Your task to perform on an android device: install app "AliExpress" Image 0: 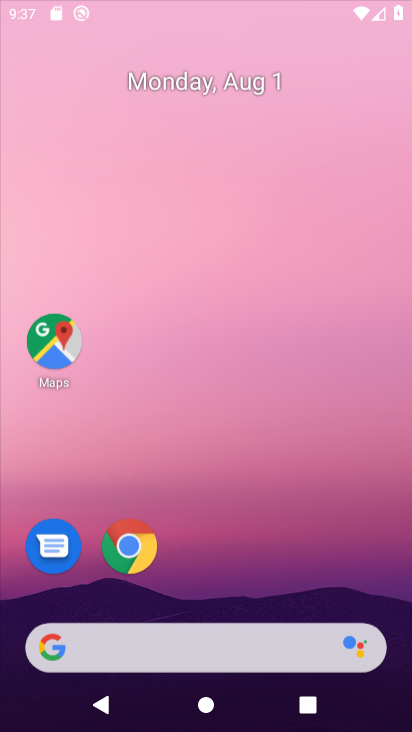
Step 0: press home button
Your task to perform on an android device: install app "AliExpress" Image 1: 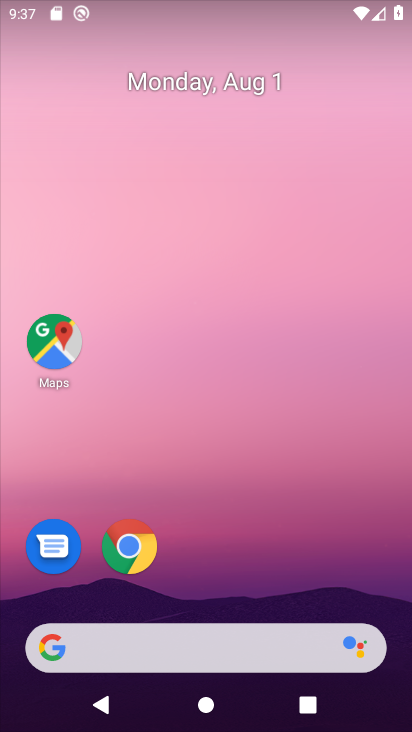
Step 1: drag from (210, 599) to (235, 18)
Your task to perform on an android device: install app "AliExpress" Image 2: 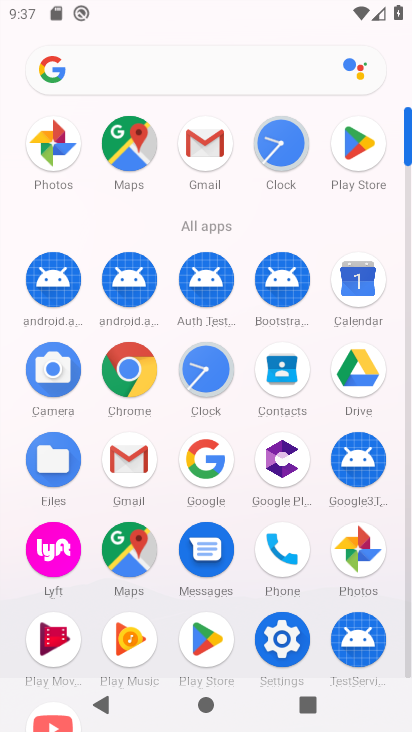
Step 2: click (355, 141)
Your task to perform on an android device: install app "AliExpress" Image 3: 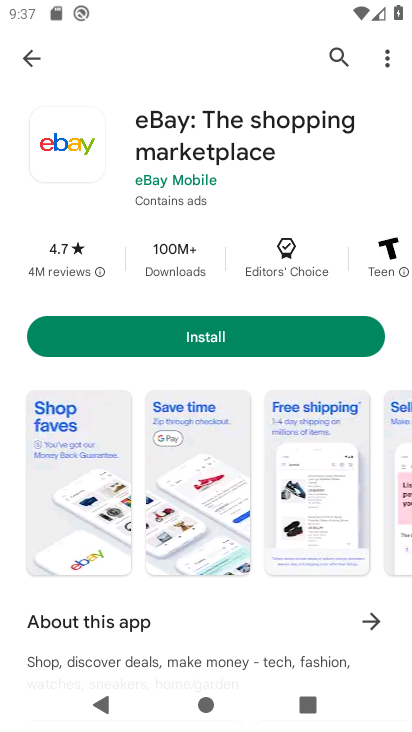
Step 3: click (346, 54)
Your task to perform on an android device: install app "AliExpress" Image 4: 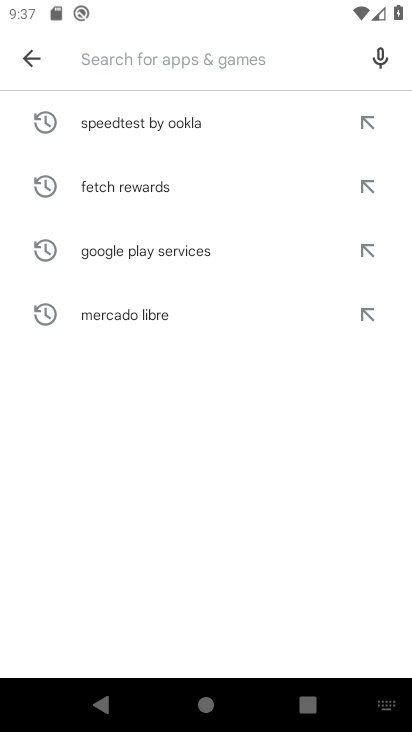
Step 4: type "AliExpress"
Your task to perform on an android device: install app "AliExpress" Image 5: 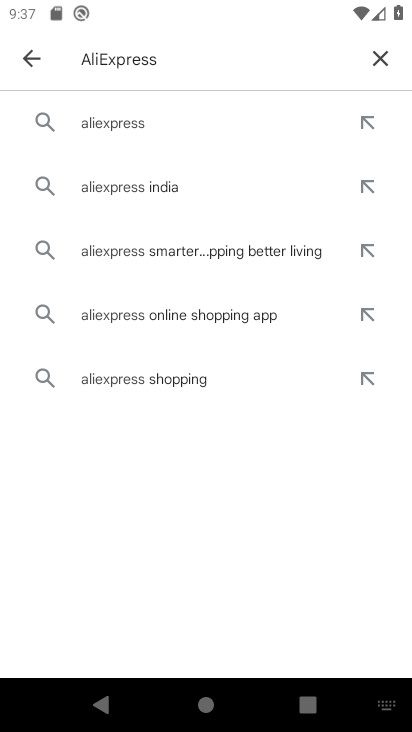
Step 5: click (127, 119)
Your task to perform on an android device: install app "AliExpress" Image 6: 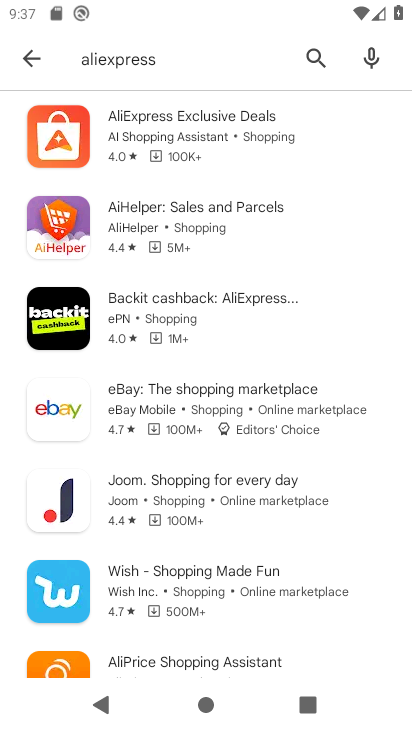
Step 6: click (169, 128)
Your task to perform on an android device: install app "AliExpress" Image 7: 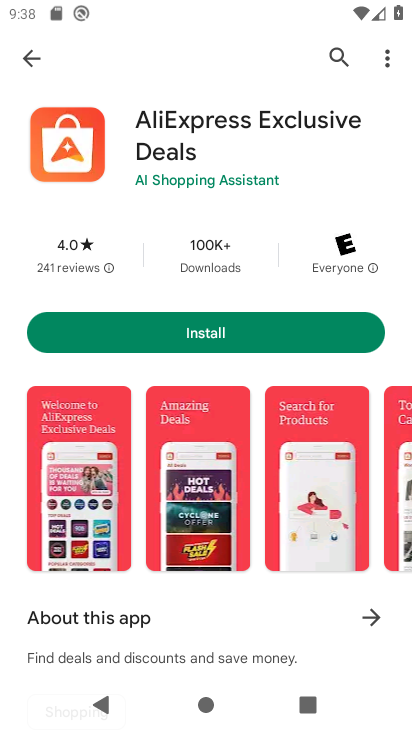
Step 7: click (209, 327)
Your task to perform on an android device: install app "AliExpress" Image 8: 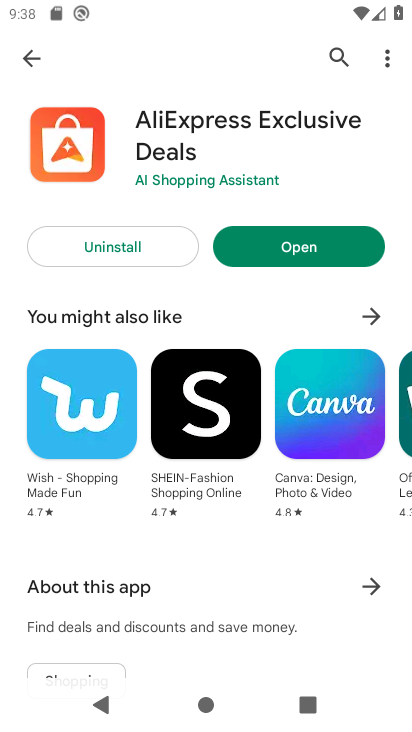
Step 8: click (290, 248)
Your task to perform on an android device: install app "AliExpress" Image 9: 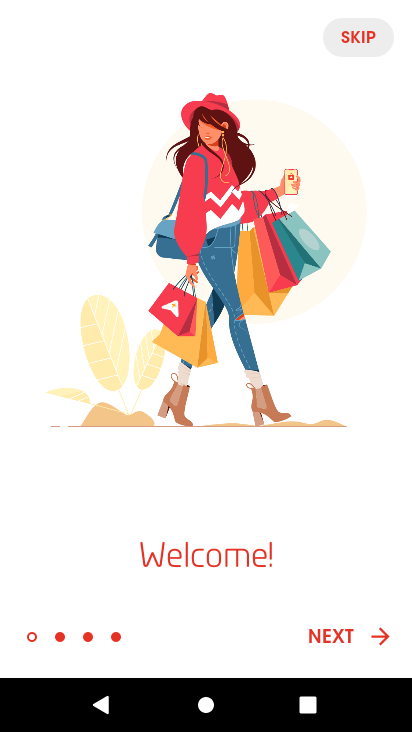
Step 9: click (340, 644)
Your task to perform on an android device: install app "AliExpress" Image 10: 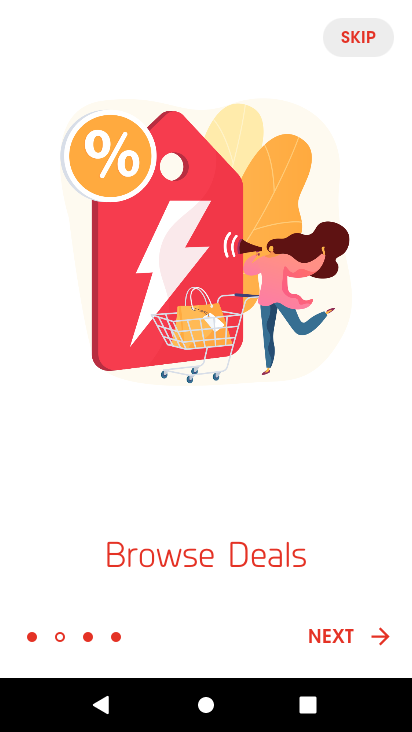
Step 10: click (348, 630)
Your task to perform on an android device: install app "AliExpress" Image 11: 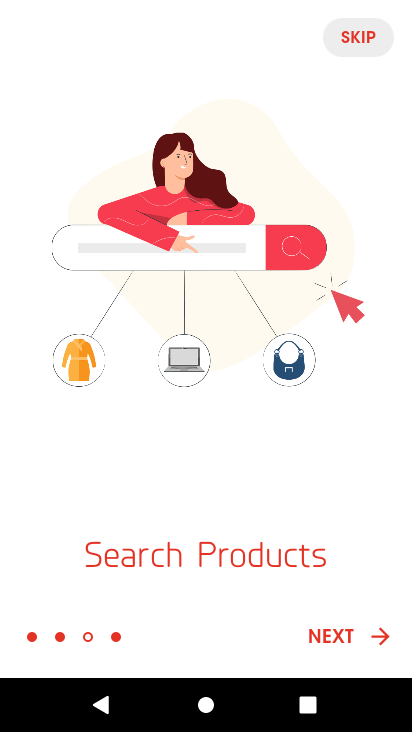
Step 11: click (376, 632)
Your task to perform on an android device: install app "AliExpress" Image 12: 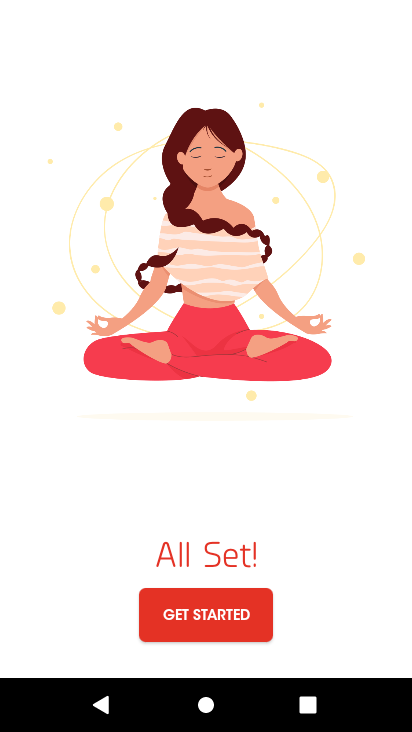
Step 12: click (202, 624)
Your task to perform on an android device: install app "AliExpress" Image 13: 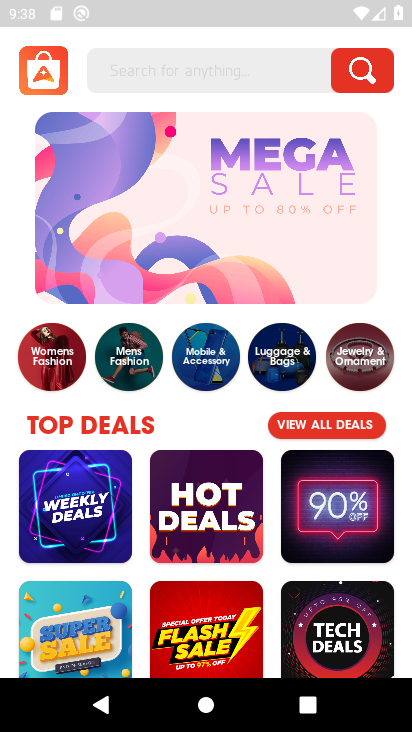
Step 13: task complete